Your task to perform on an android device: What's the weather? Image 0: 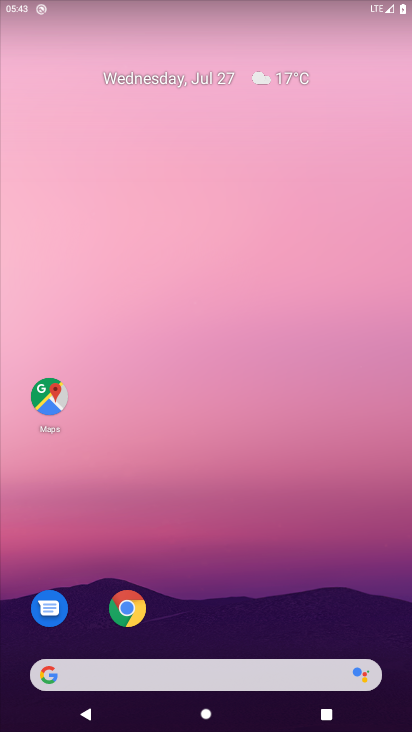
Step 0: press home button
Your task to perform on an android device: What's the weather? Image 1: 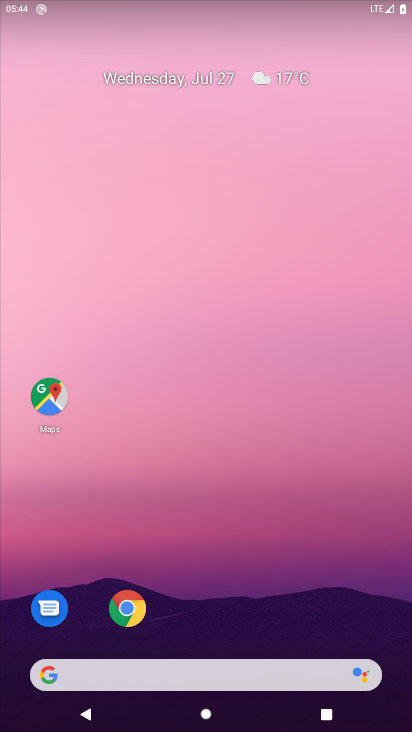
Step 1: click (37, 684)
Your task to perform on an android device: What's the weather? Image 2: 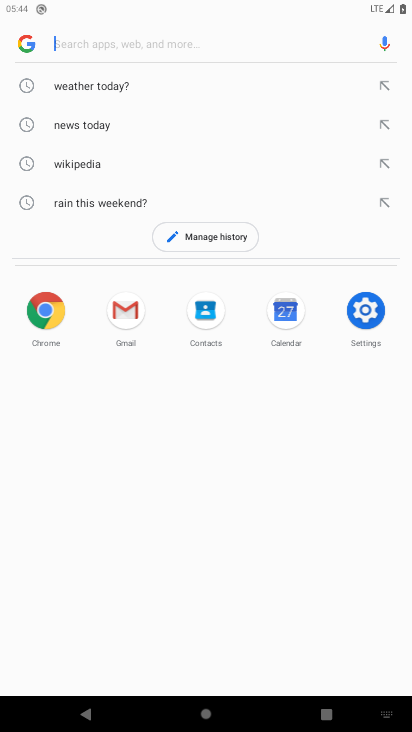
Step 2: press enter
Your task to perform on an android device: What's the weather? Image 3: 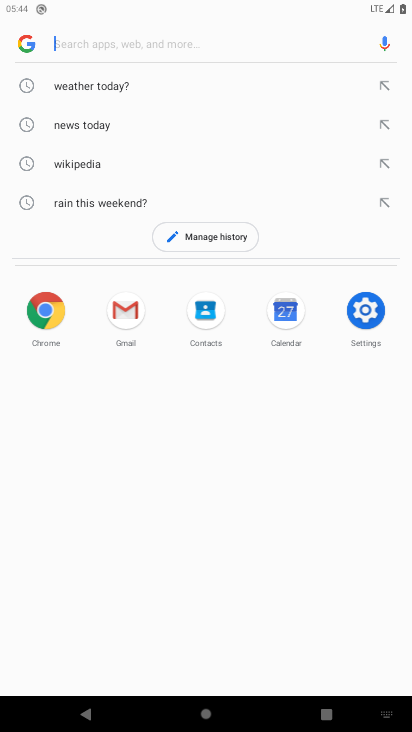
Step 3: type "weather?"
Your task to perform on an android device: What's the weather? Image 4: 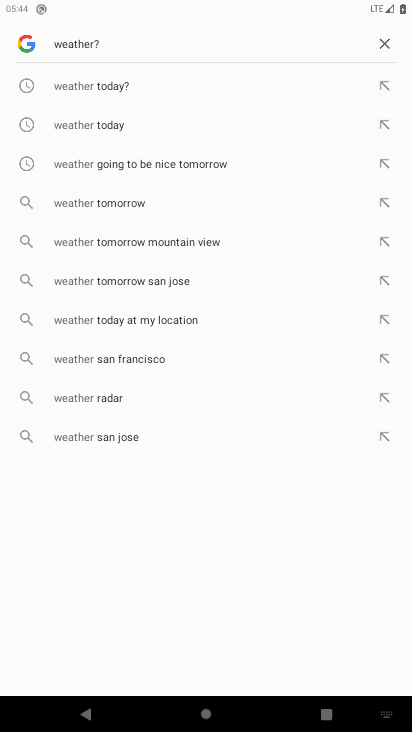
Step 4: press enter
Your task to perform on an android device: What's the weather? Image 5: 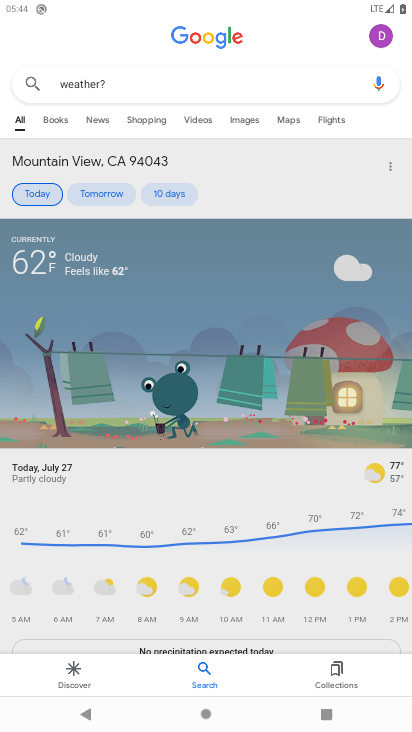
Step 5: task complete